Your task to perform on an android device: Open Google Chrome and click the shortcut for Amazon.com Image 0: 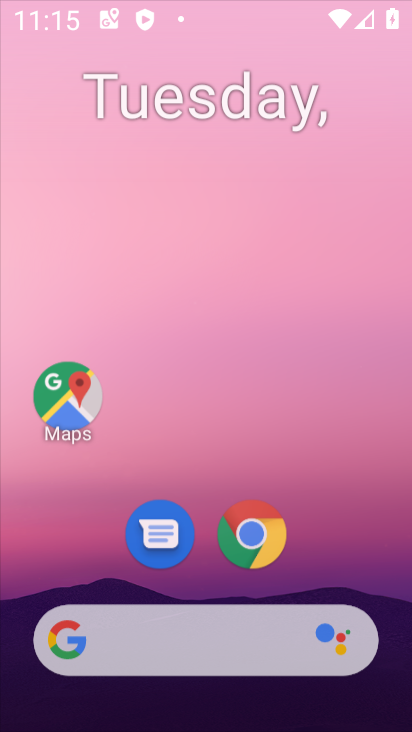
Step 0: click (255, 657)
Your task to perform on an android device: Open Google Chrome and click the shortcut for Amazon.com Image 1: 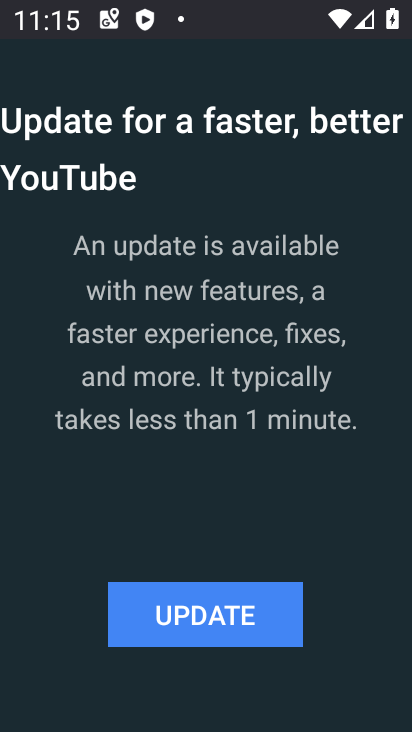
Step 1: press home button
Your task to perform on an android device: Open Google Chrome and click the shortcut for Amazon.com Image 2: 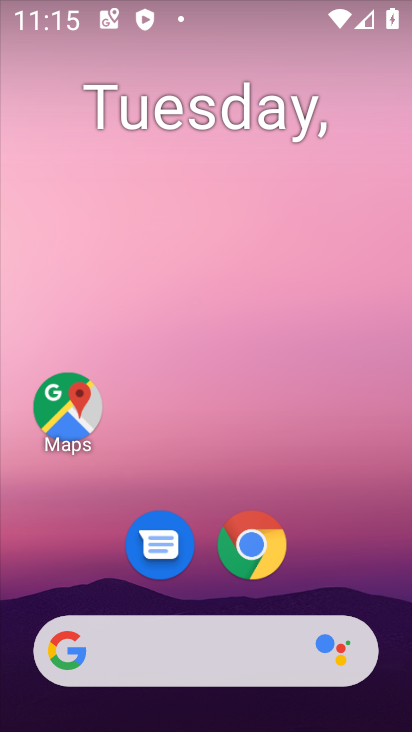
Step 2: click (274, 542)
Your task to perform on an android device: Open Google Chrome and click the shortcut for Amazon.com Image 3: 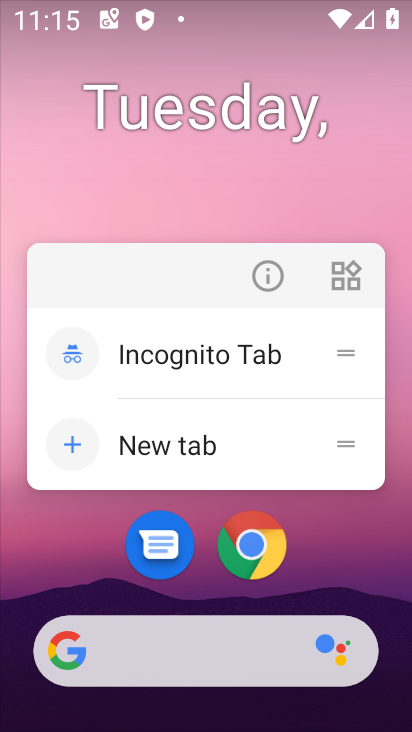
Step 3: click (274, 542)
Your task to perform on an android device: Open Google Chrome and click the shortcut for Amazon.com Image 4: 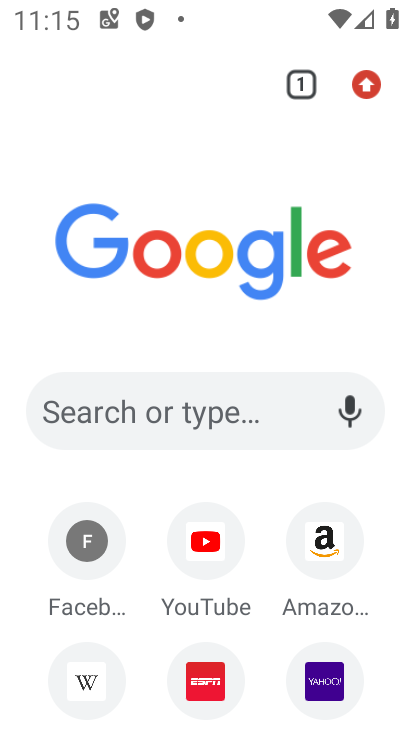
Step 4: click (332, 540)
Your task to perform on an android device: Open Google Chrome and click the shortcut for Amazon.com Image 5: 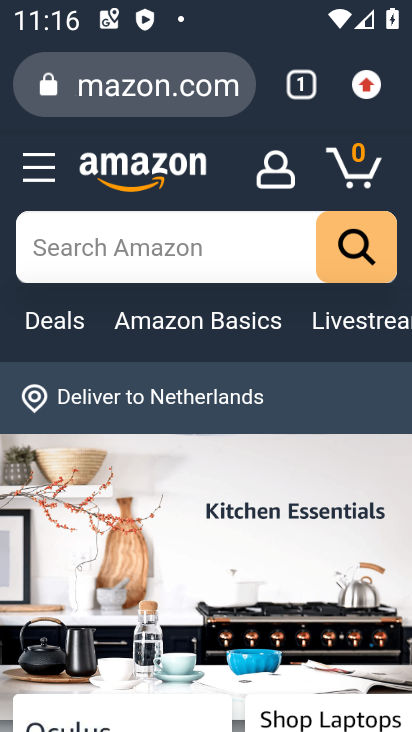
Step 5: task complete